Your task to perform on an android device: Open accessibility settings Image 0: 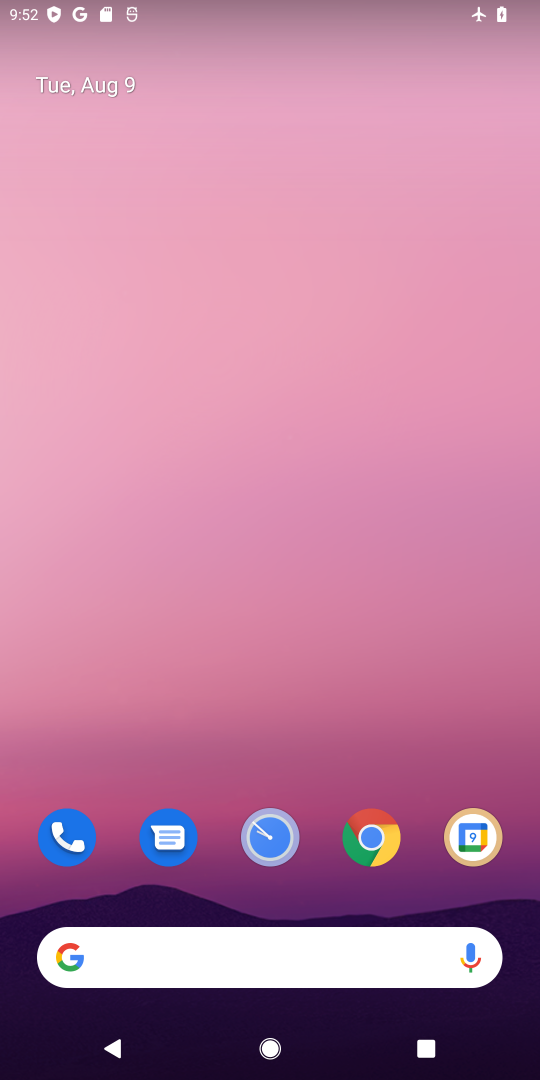
Step 0: drag from (303, 898) to (348, 108)
Your task to perform on an android device: Open accessibility settings Image 1: 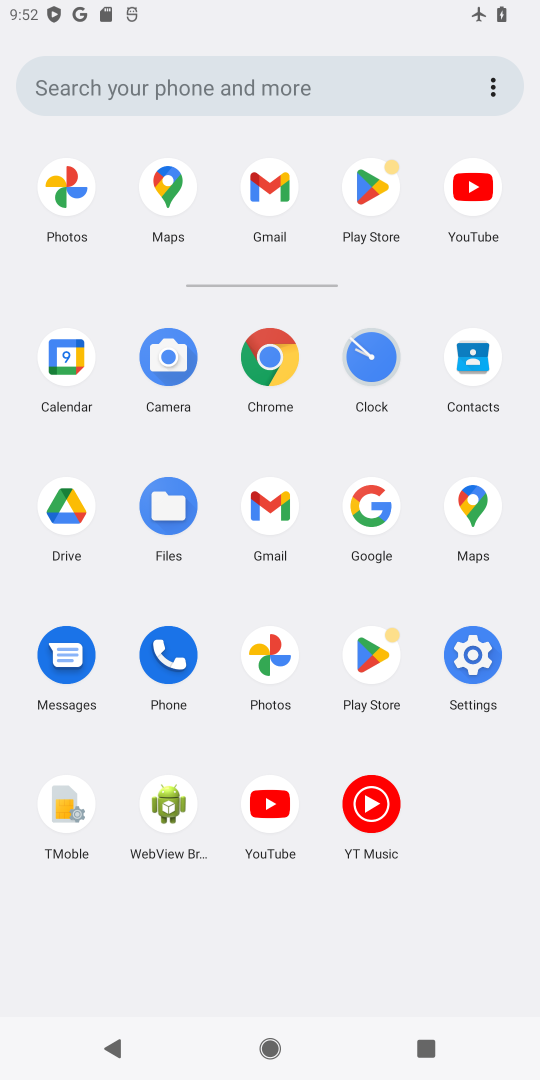
Step 1: click (458, 662)
Your task to perform on an android device: Open accessibility settings Image 2: 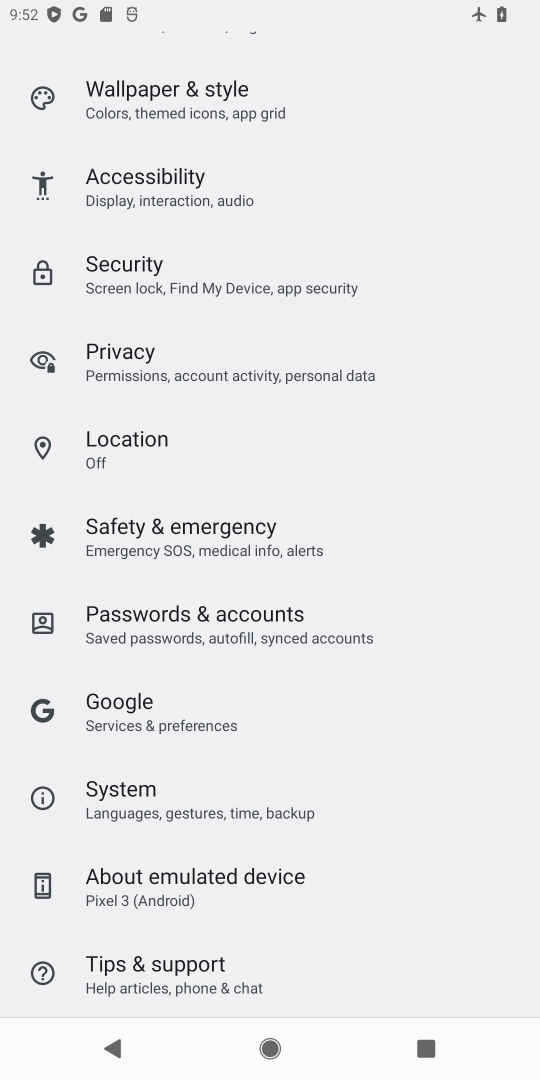
Step 2: click (129, 189)
Your task to perform on an android device: Open accessibility settings Image 3: 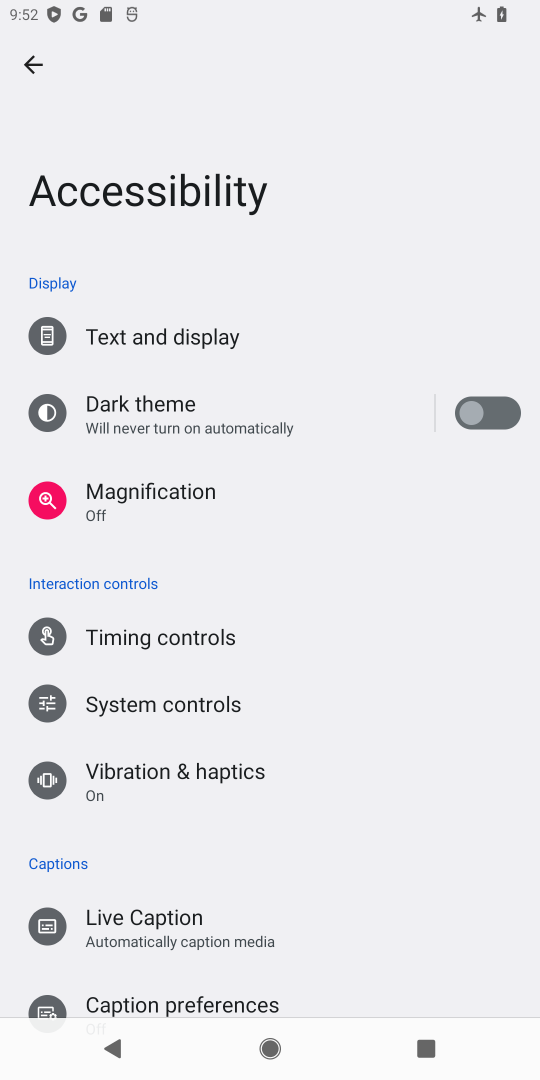
Step 3: task complete